Your task to perform on an android device: Go to eBay Image 0: 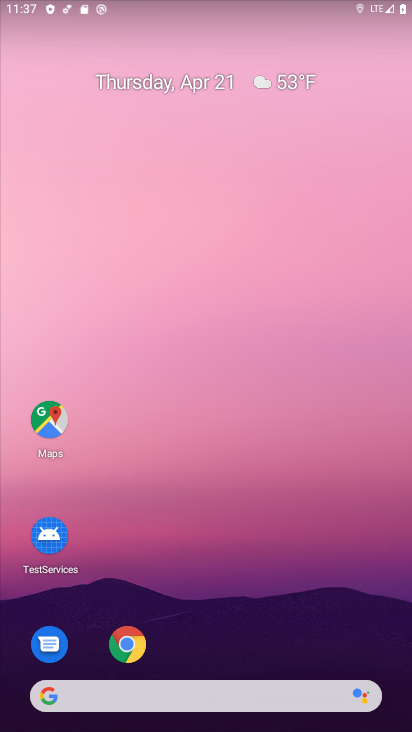
Step 0: click (137, 640)
Your task to perform on an android device: Go to eBay Image 1: 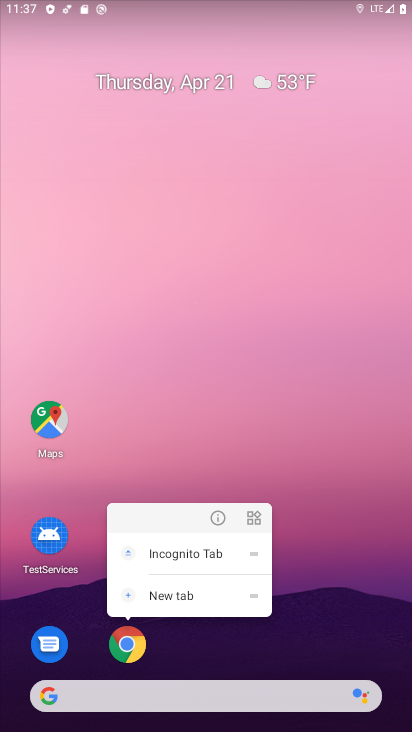
Step 1: click (137, 638)
Your task to perform on an android device: Go to eBay Image 2: 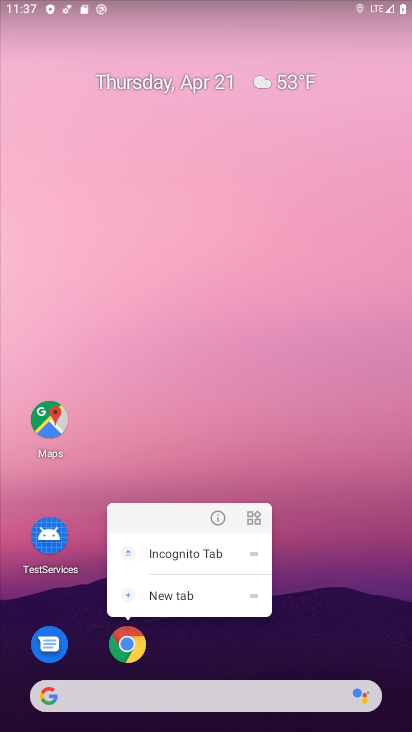
Step 2: click (123, 642)
Your task to perform on an android device: Go to eBay Image 3: 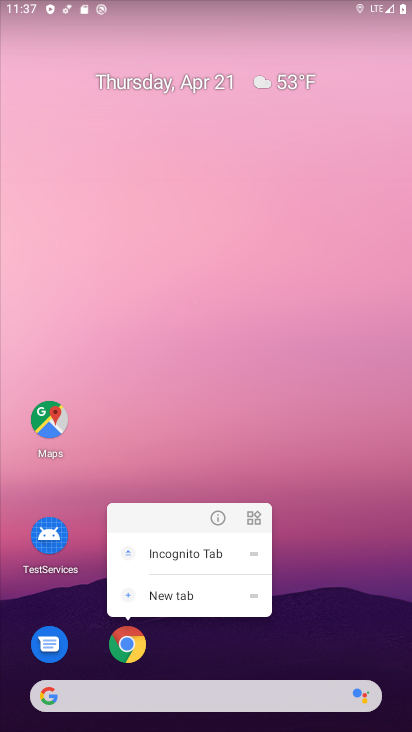
Step 3: click (128, 642)
Your task to perform on an android device: Go to eBay Image 4: 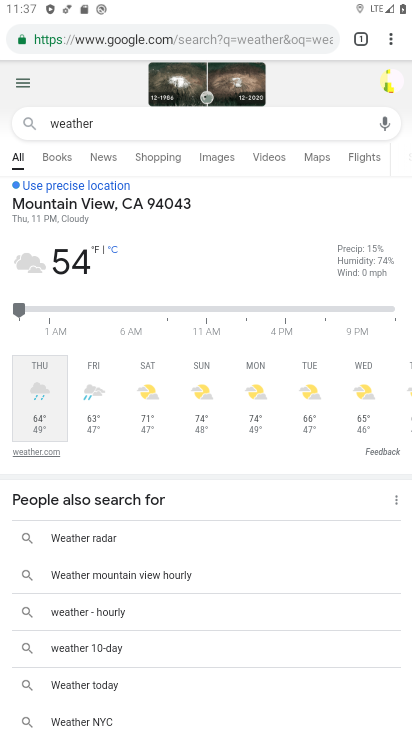
Step 4: click (167, 39)
Your task to perform on an android device: Go to eBay Image 5: 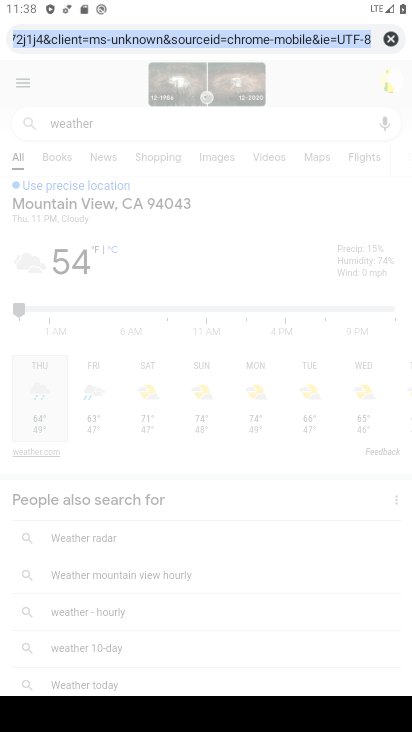
Step 5: type "ebay"
Your task to perform on an android device: Go to eBay Image 6: 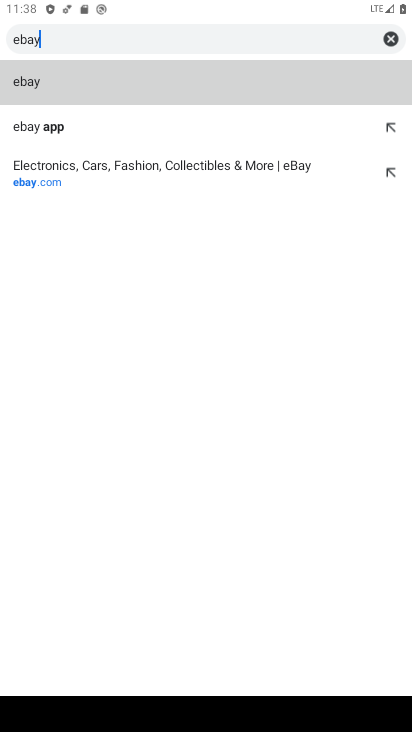
Step 6: click (25, 81)
Your task to perform on an android device: Go to eBay Image 7: 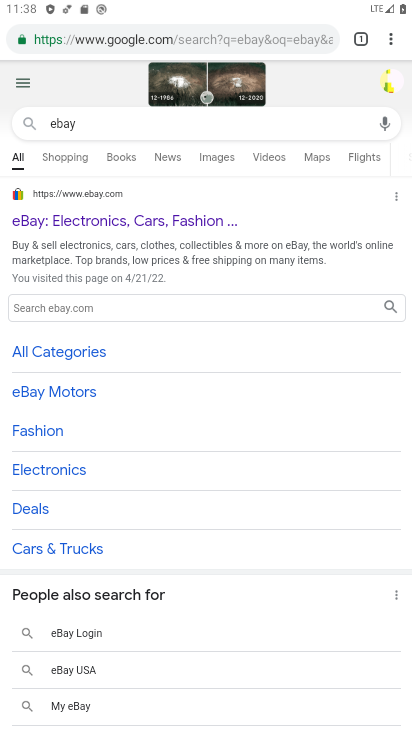
Step 7: click (119, 229)
Your task to perform on an android device: Go to eBay Image 8: 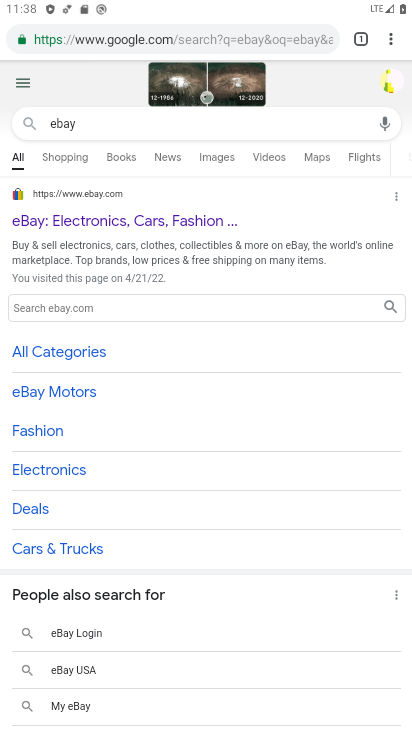
Step 8: click (119, 223)
Your task to perform on an android device: Go to eBay Image 9: 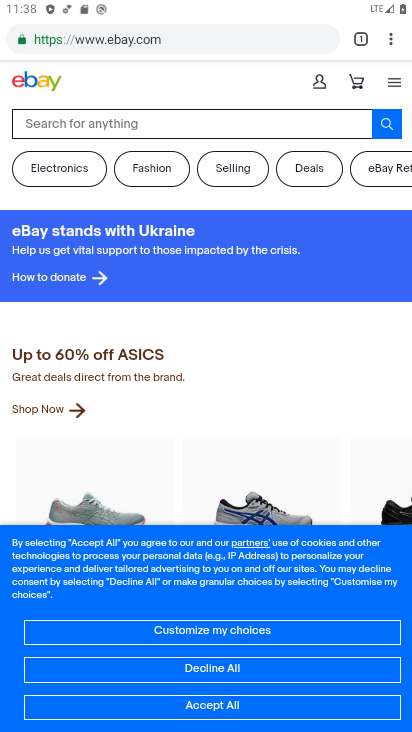
Step 9: task complete